Your task to perform on an android device: find snoozed emails in the gmail app Image 0: 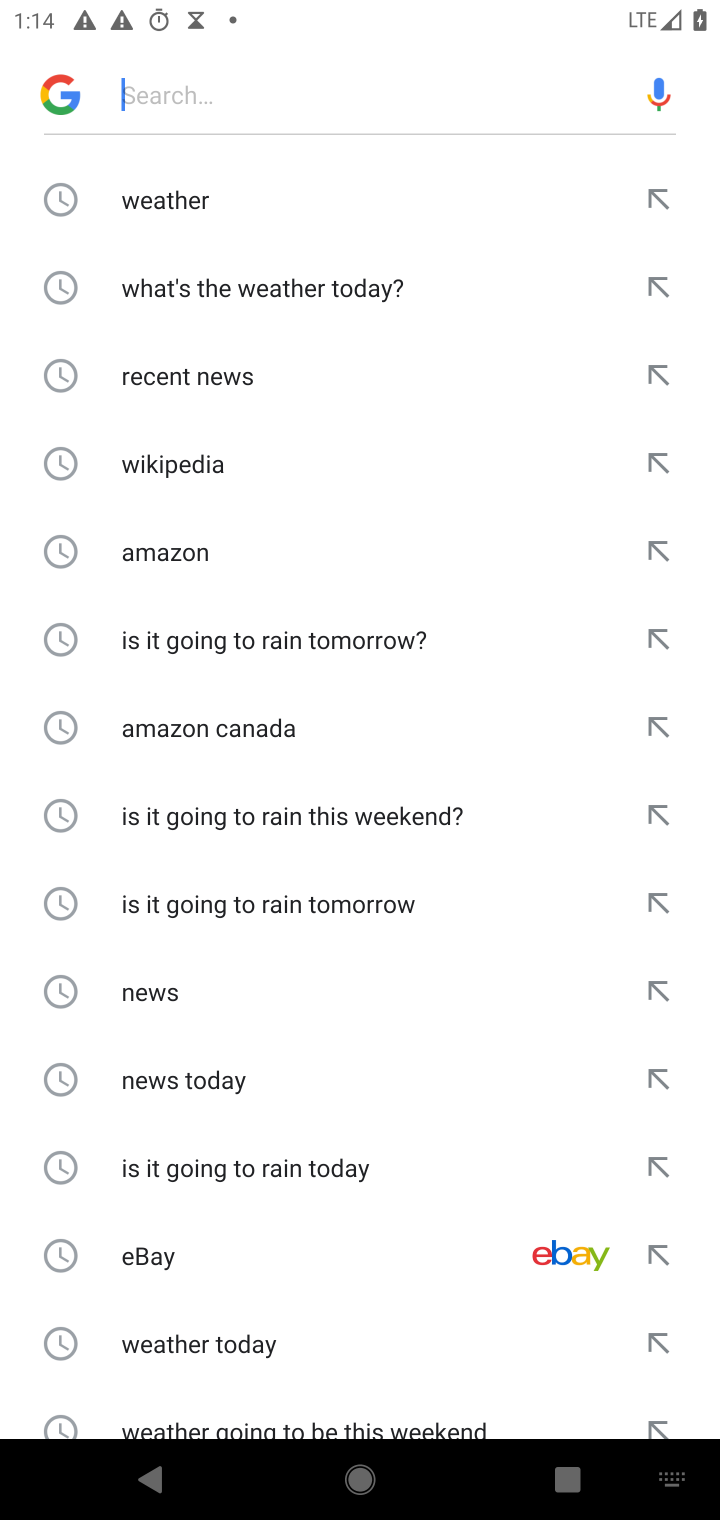
Step 0: press home button
Your task to perform on an android device: find snoozed emails in the gmail app Image 1: 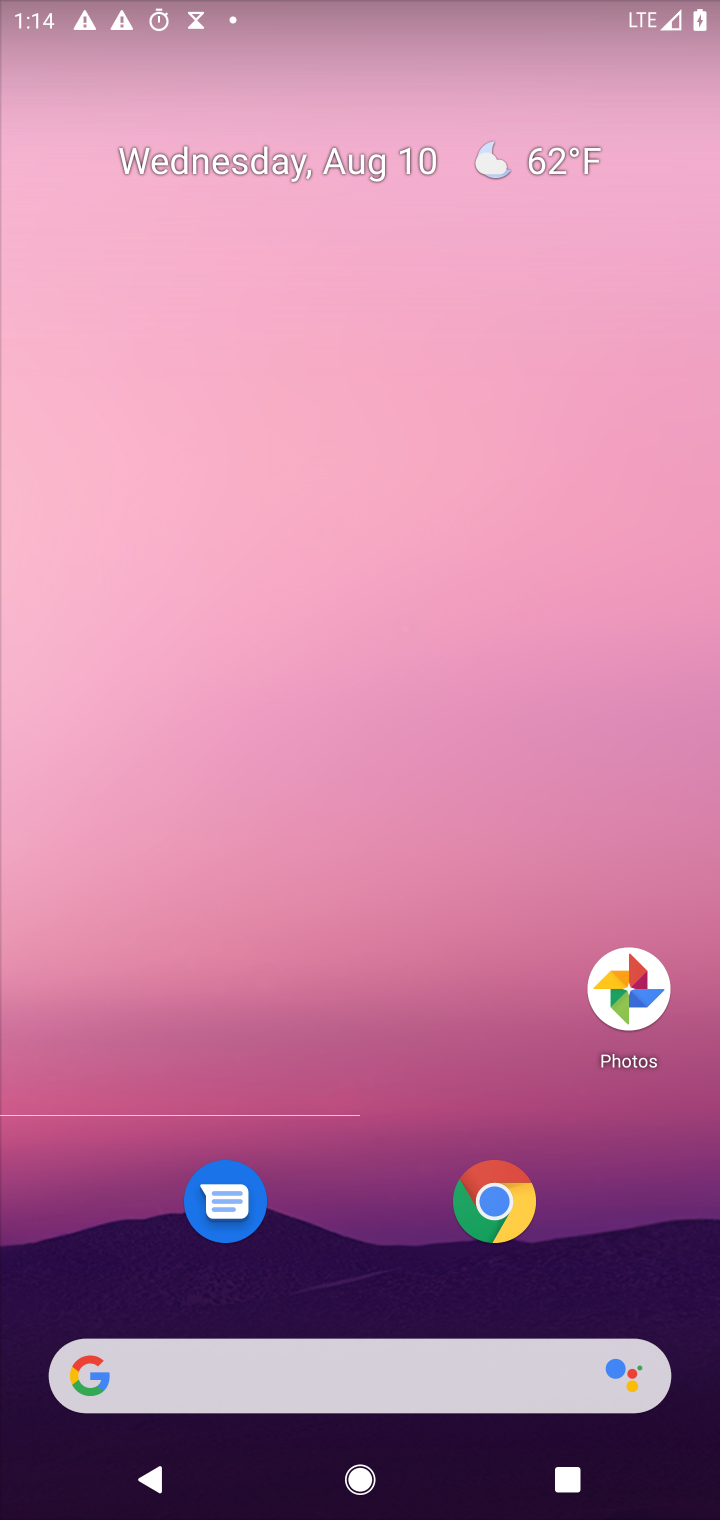
Step 1: drag from (384, 1272) to (368, 284)
Your task to perform on an android device: find snoozed emails in the gmail app Image 2: 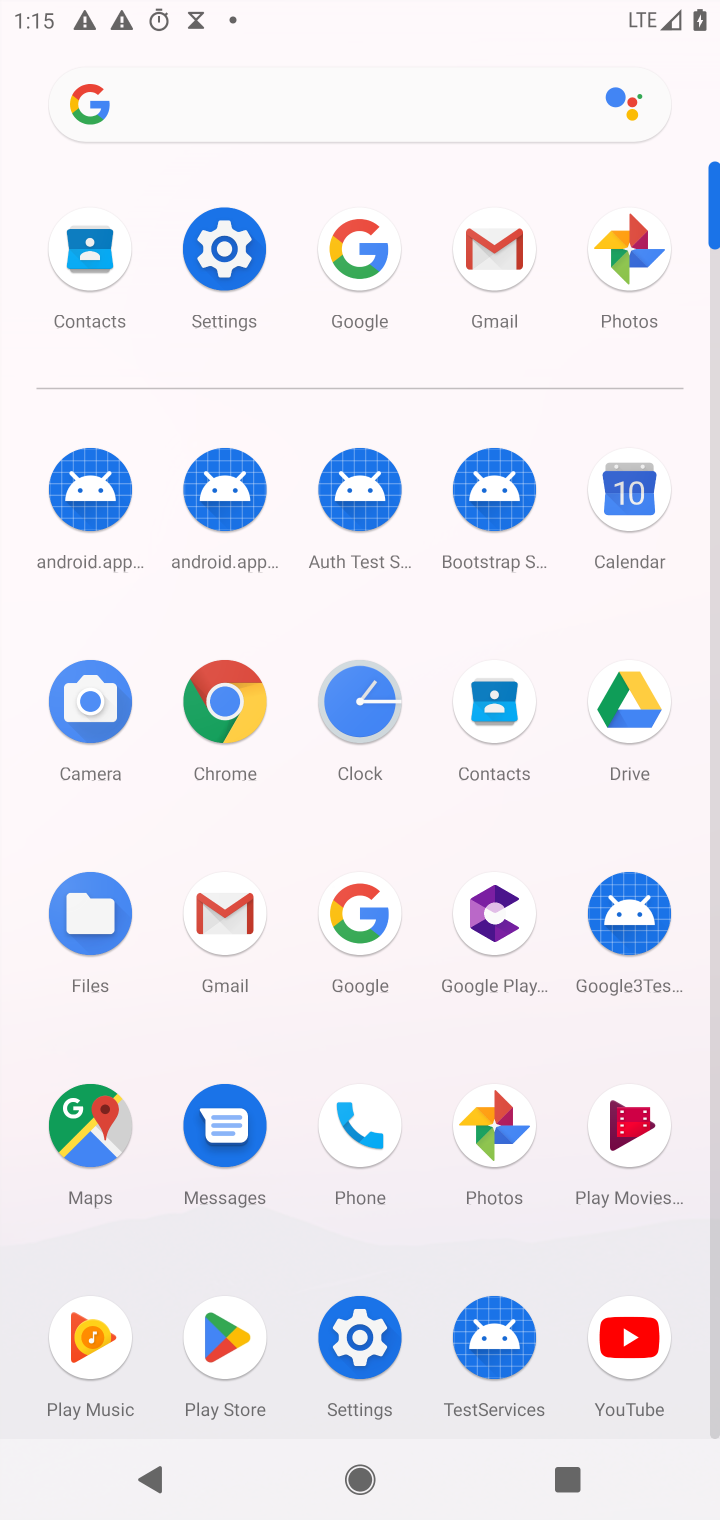
Step 2: click (481, 275)
Your task to perform on an android device: find snoozed emails in the gmail app Image 3: 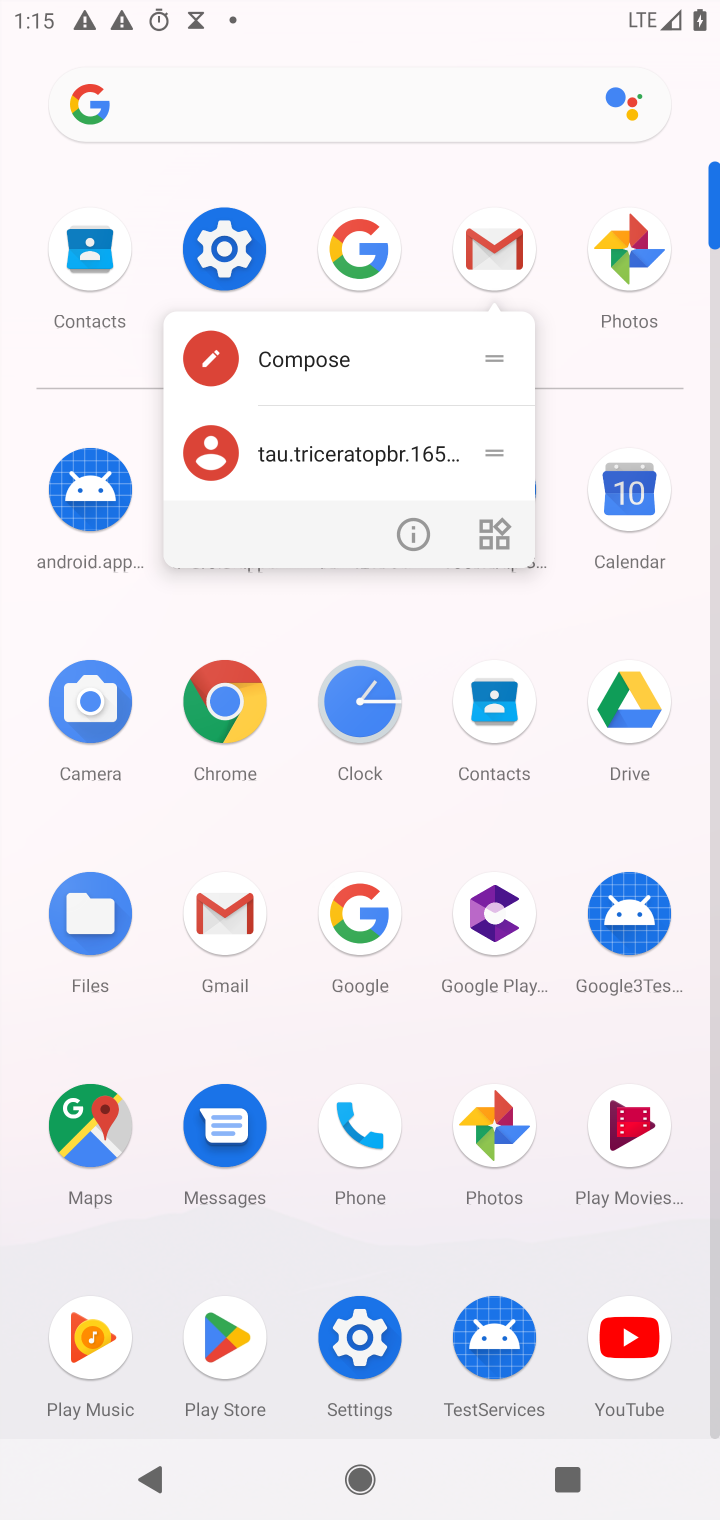
Step 3: click (483, 263)
Your task to perform on an android device: find snoozed emails in the gmail app Image 4: 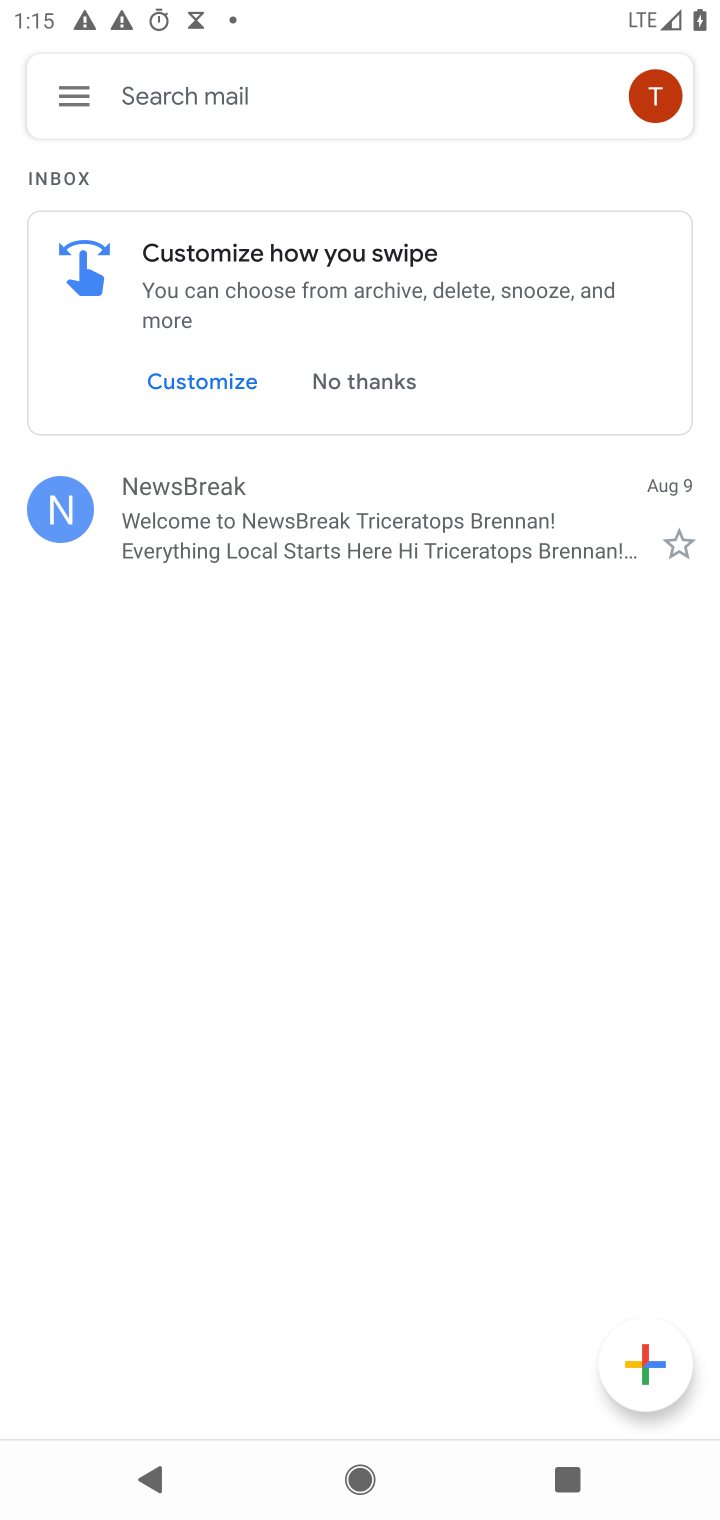
Step 4: click (56, 98)
Your task to perform on an android device: find snoozed emails in the gmail app Image 5: 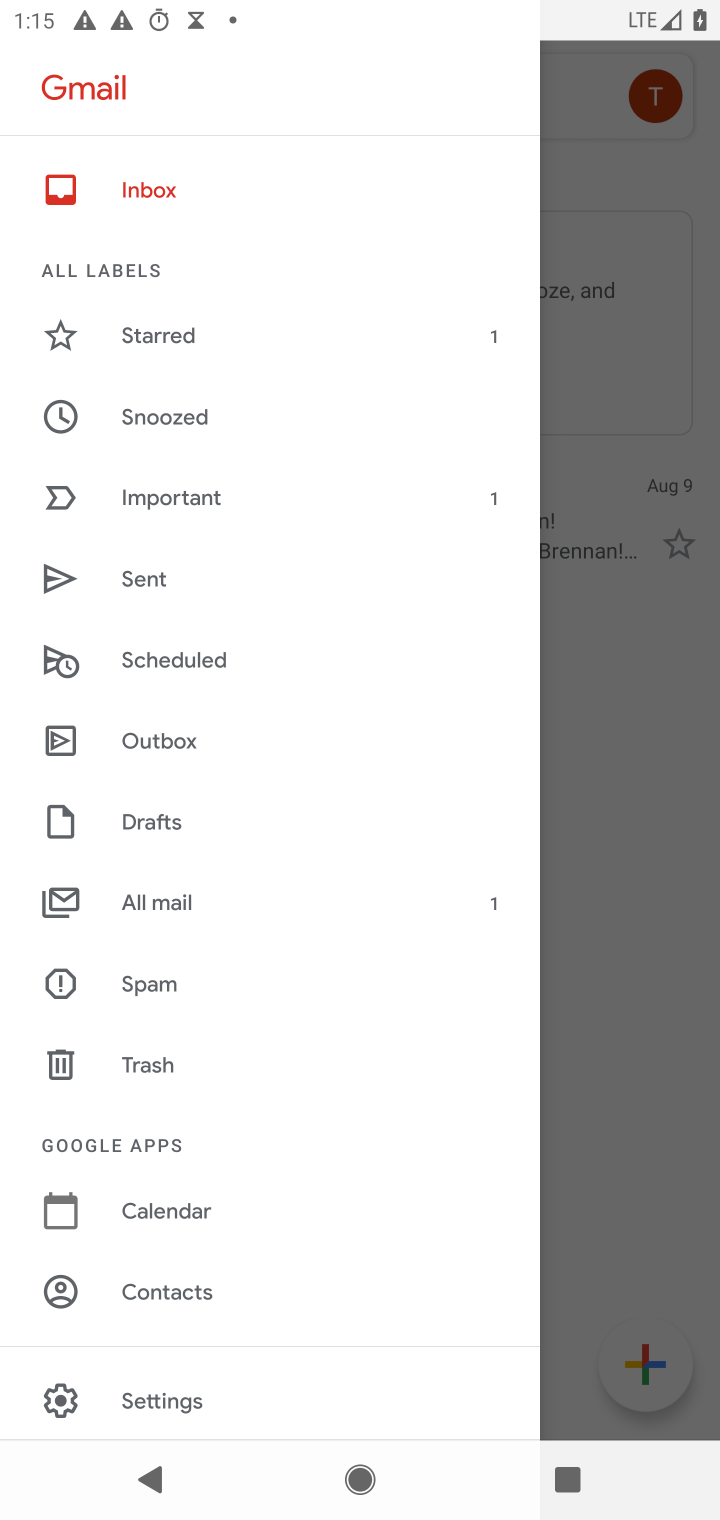
Step 5: click (160, 419)
Your task to perform on an android device: find snoozed emails in the gmail app Image 6: 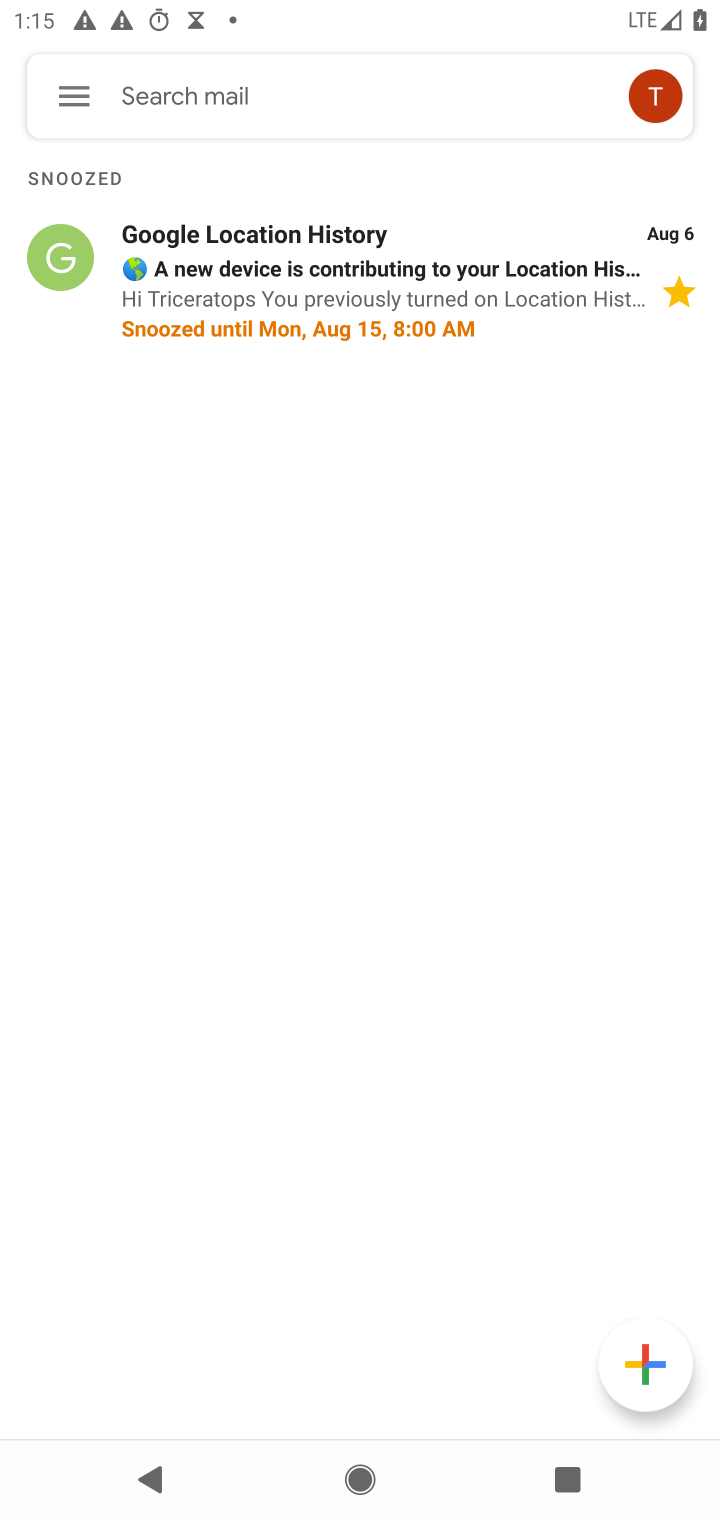
Step 6: task complete